Your task to perform on an android device: check data usage Image 0: 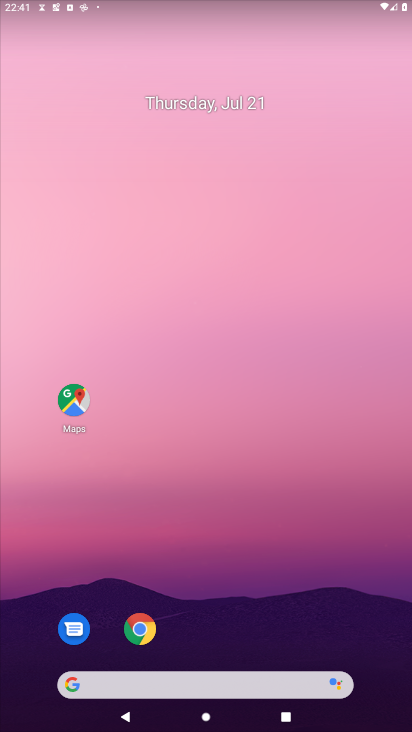
Step 0: drag from (196, 613) to (250, 159)
Your task to perform on an android device: check data usage Image 1: 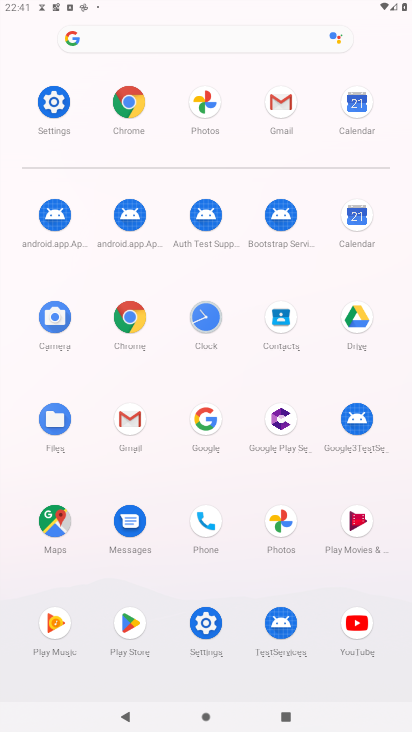
Step 1: click (59, 103)
Your task to perform on an android device: check data usage Image 2: 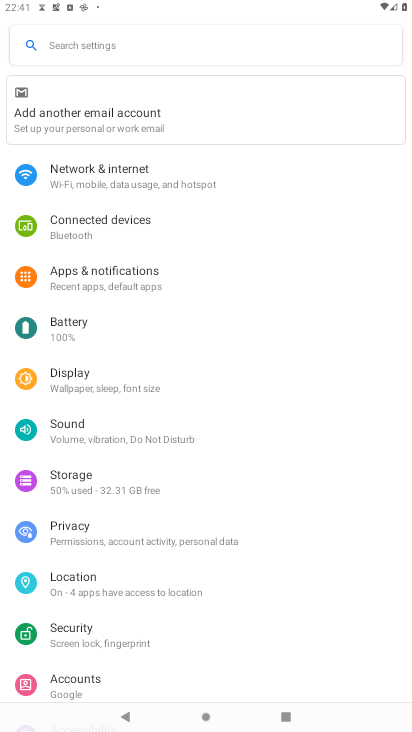
Step 2: click (204, 171)
Your task to perform on an android device: check data usage Image 3: 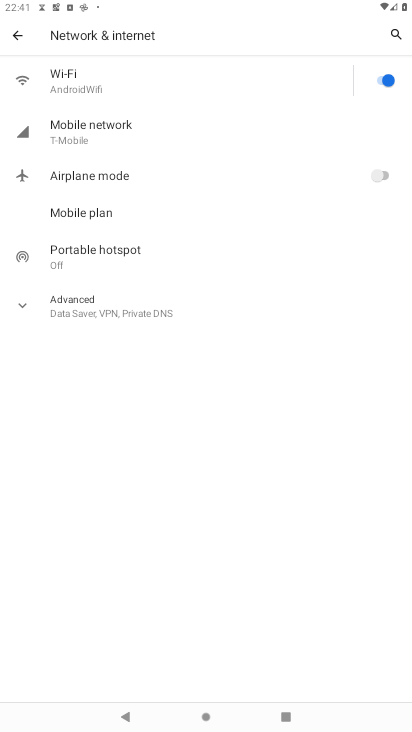
Step 3: drag from (179, 140) to (233, 256)
Your task to perform on an android device: check data usage Image 4: 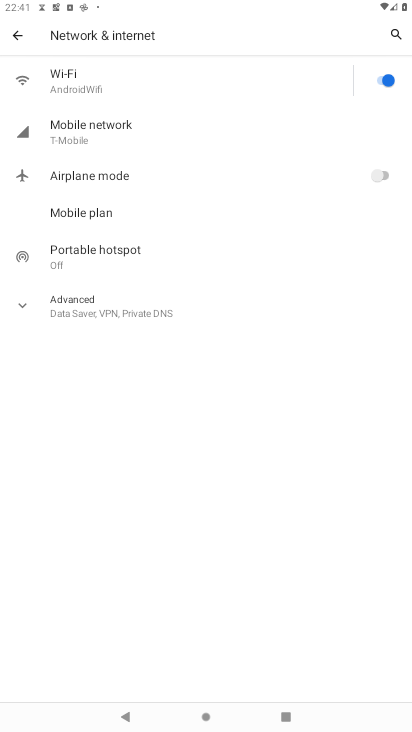
Step 4: click (210, 142)
Your task to perform on an android device: check data usage Image 5: 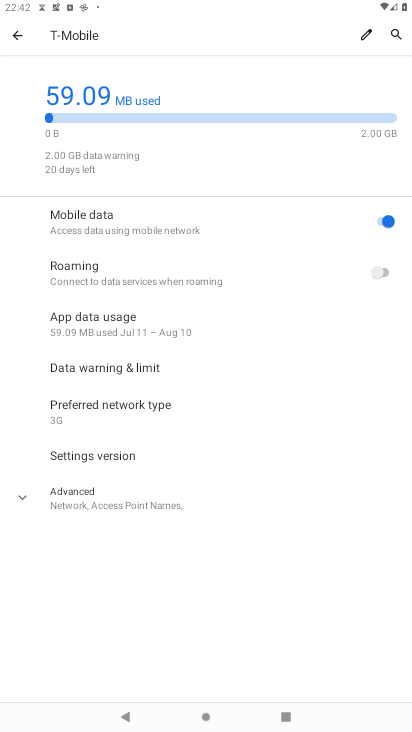
Step 5: task complete